Your task to perform on an android device: Open CNN.com Image 0: 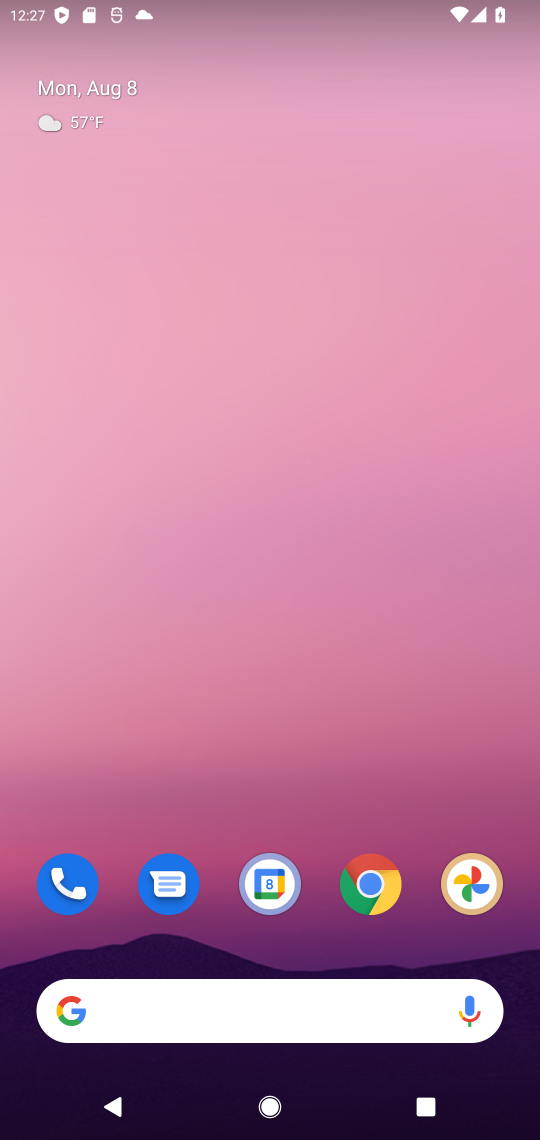
Step 0: click (333, 1007)
Your task to perform on an android device: Open CNN.com Image 1: 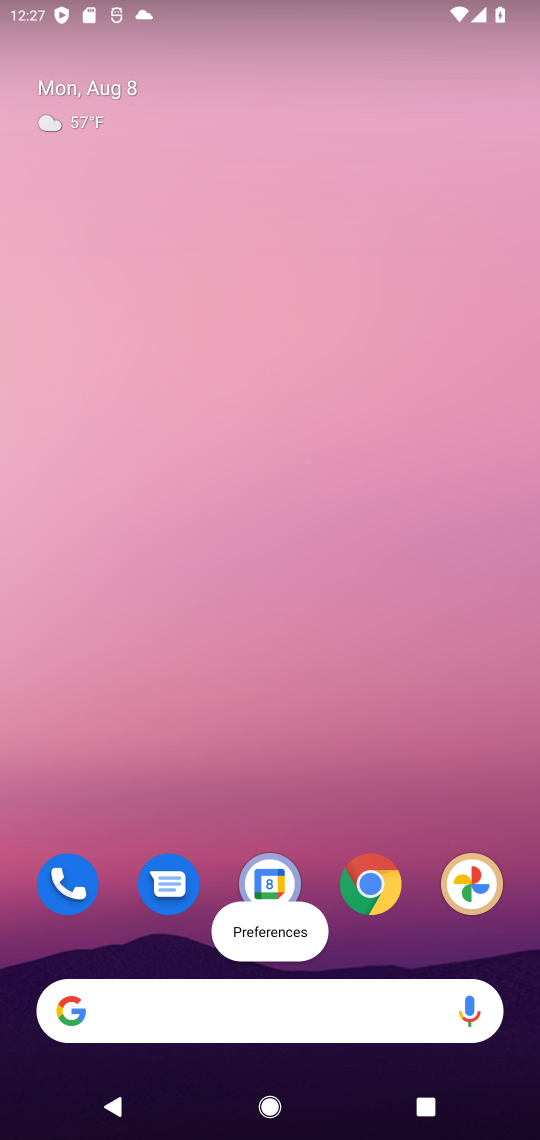
Step 1: click (152, 1008)
Your task to perform on an android device: Open CNN.com Image 2: 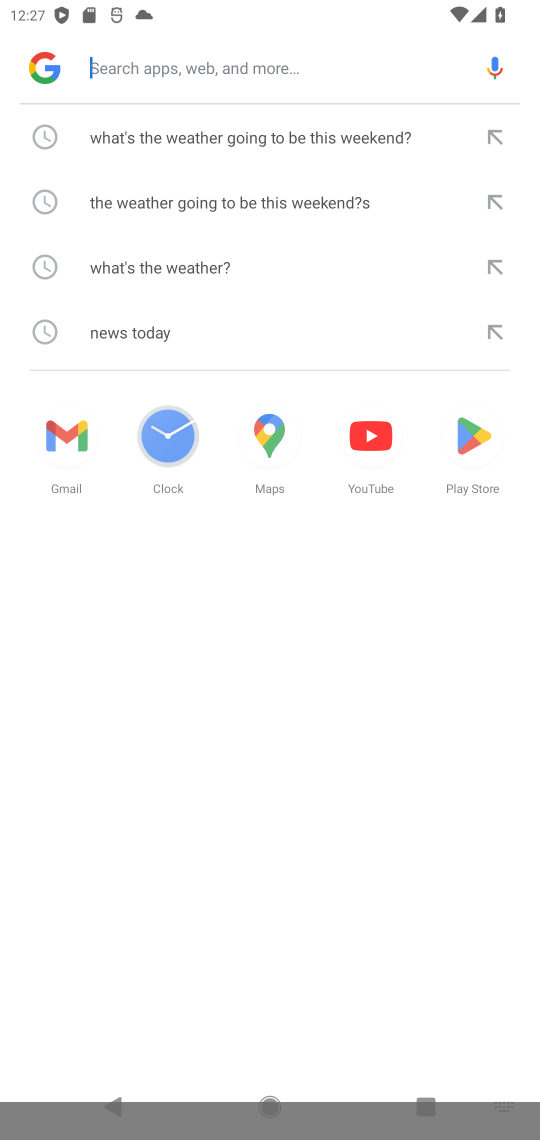
Step 2: drag from (152, 1008) to (106, 924)
Your task to perform on an android device: Open CNN.com Image 3: 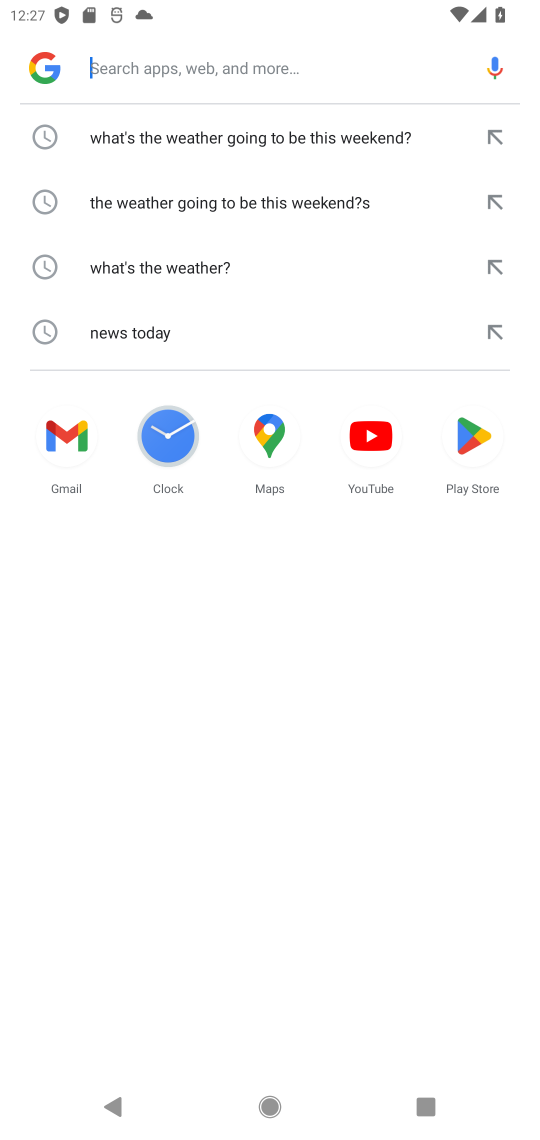
Step 3: type "cnn.com"
Your task to perform on an android device: Open CNN.com Image 4: 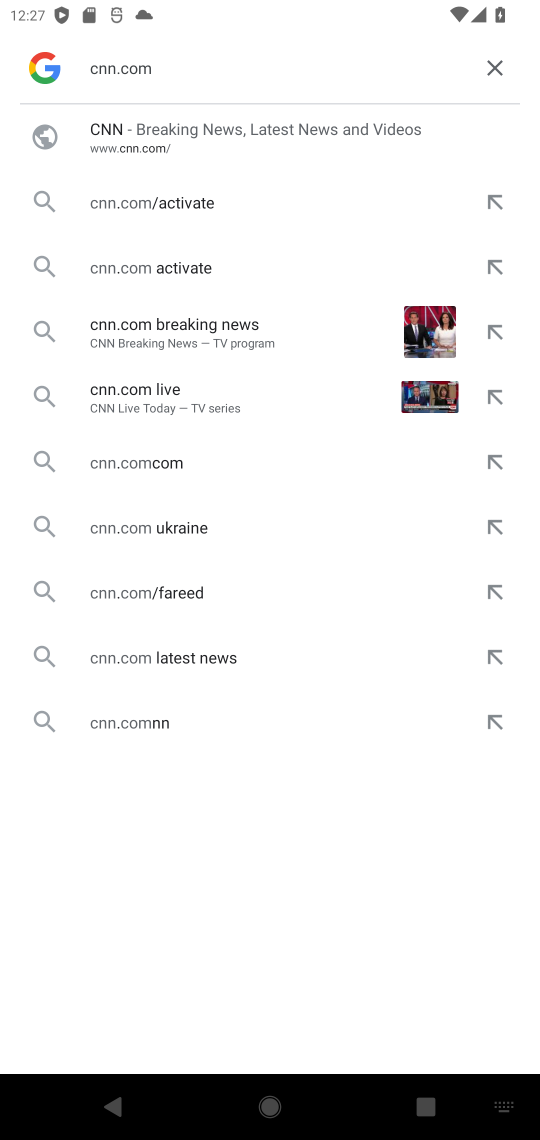
Step 4: click (220, 137)
Your task to perform on an android device: Open CNN.com Image 5: 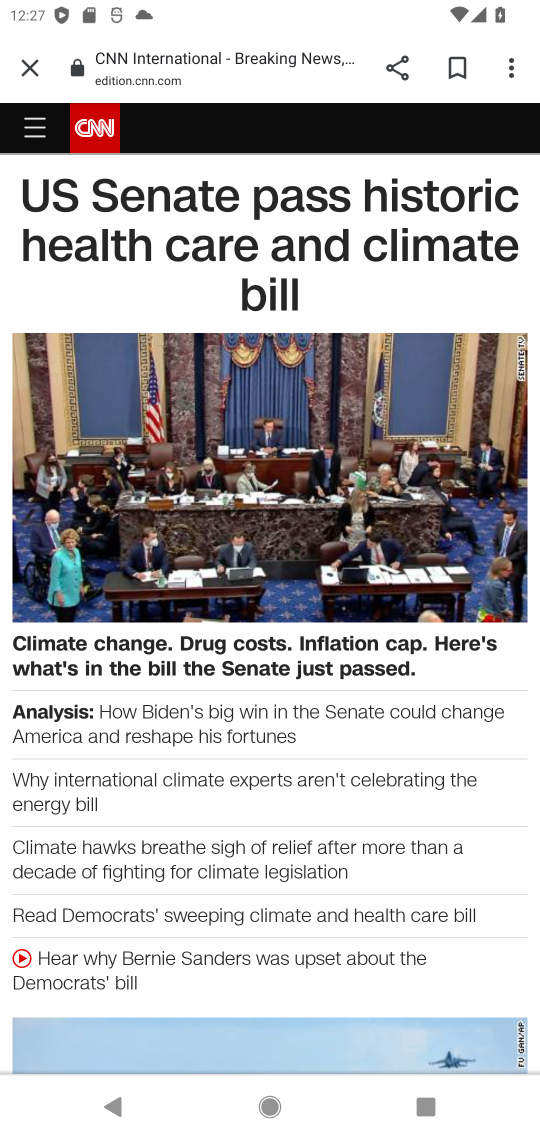
Step 5: task complete